Your task to perform on an android device: turn on location history Image 0: 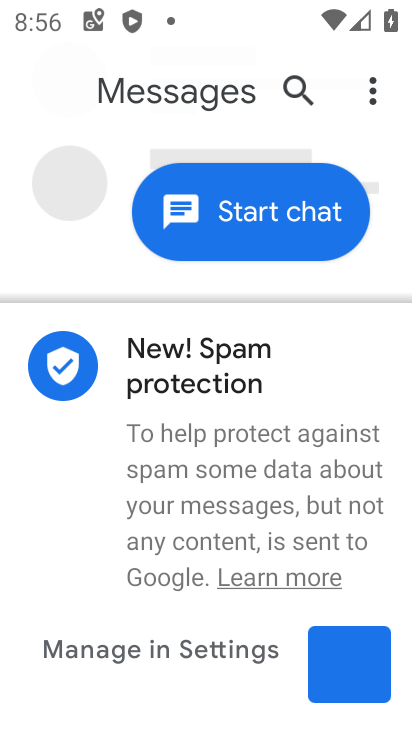
Step 0: press home button
Your task to perform on an android device: turn on location history Image 1: 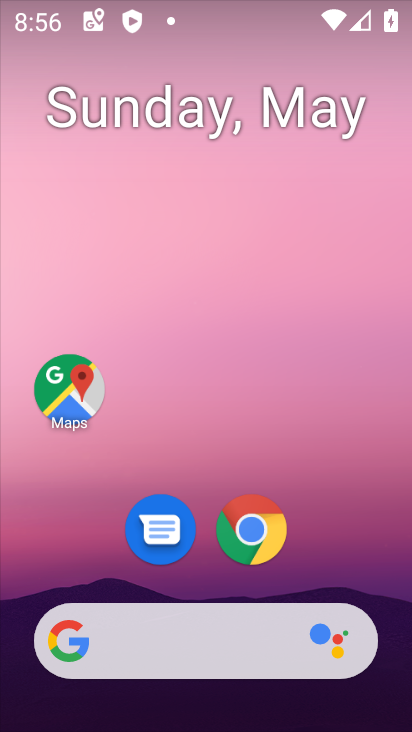
Step 1: drag from (352, 557) to (270, 42)
Your task to perform on an android device: turn on location history Image 2: 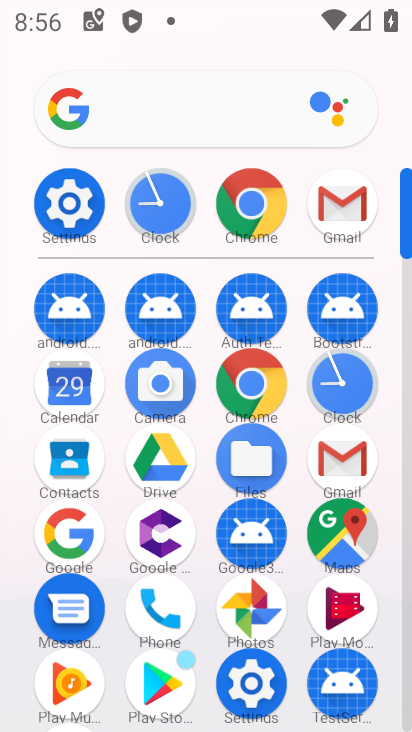
Step 2: click (62, 213)
Your task to perform on an android device: turn on location history Image 3: 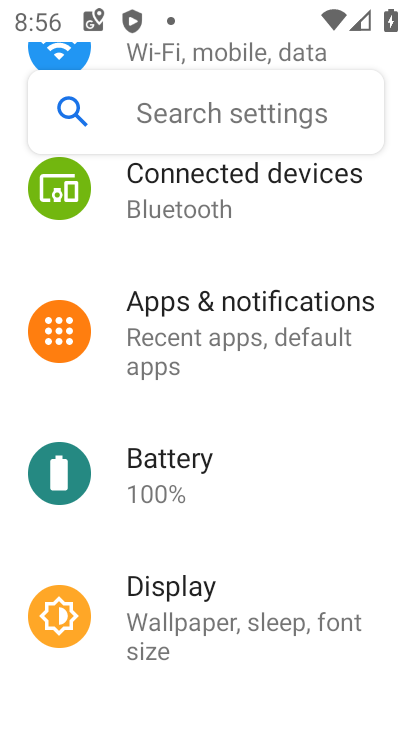
Step 3: drag from (216, 584) to (211, 241)
Your task to perform on an android device: turn on location history Image 4: 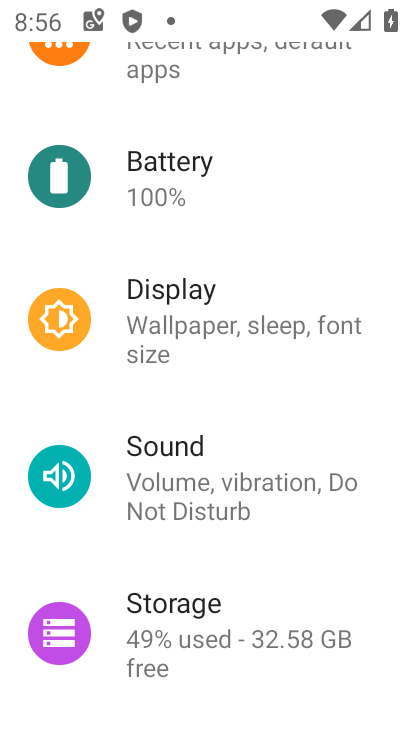
Step 4: drag from (221, 597) to (206, 221)
Your task to perform on an android device: turn on location history Image 5: 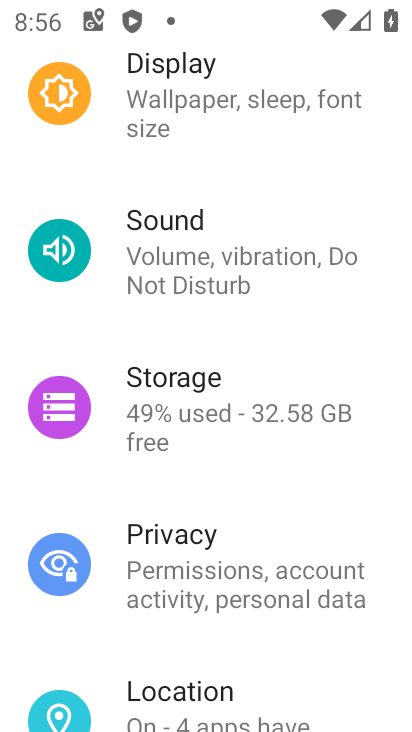
Step 5: click (226, 683)
Your task to perform on an android device: turn on location history Image 6: 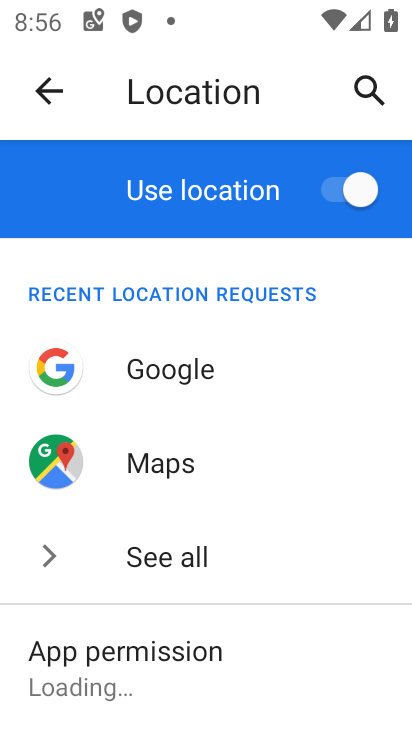
Step 6: drag from (266, 609) to (261, 465)
Your task to perform on an android device: turn on location history Image 7: 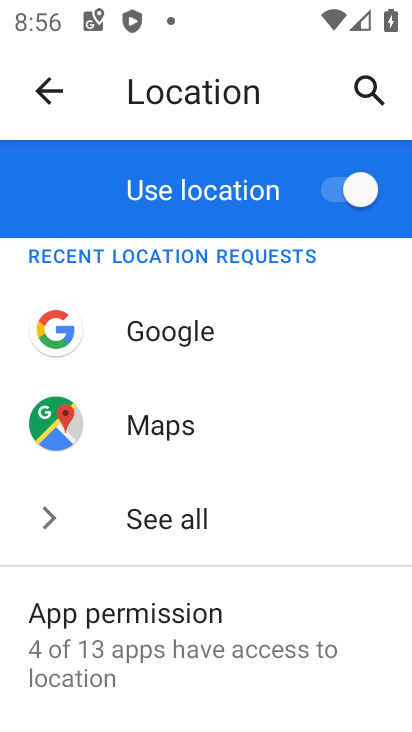
Step 7: drag from (272, 622) to (268, 544)
Your task to perform on an android device: turn on location history Image 8: 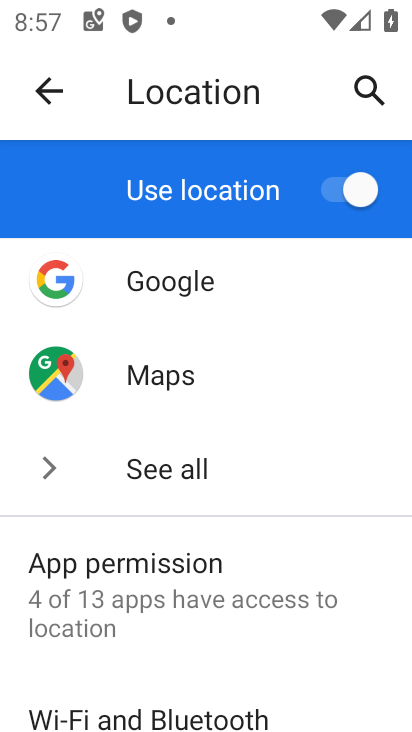
Step 8: drag from (184, 624) to (184, 528)
Your task to perform on an android device: turn on location history Image 9: 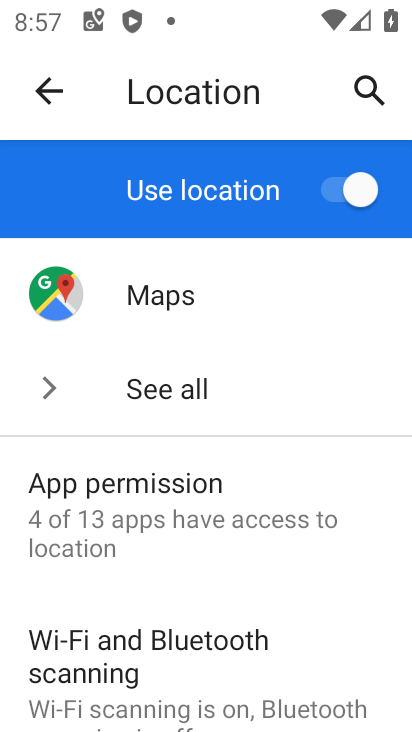
Step 9: drag from (245, 688) to (242, 481)
Your task to perform on an android device: turn on location history Image 10: 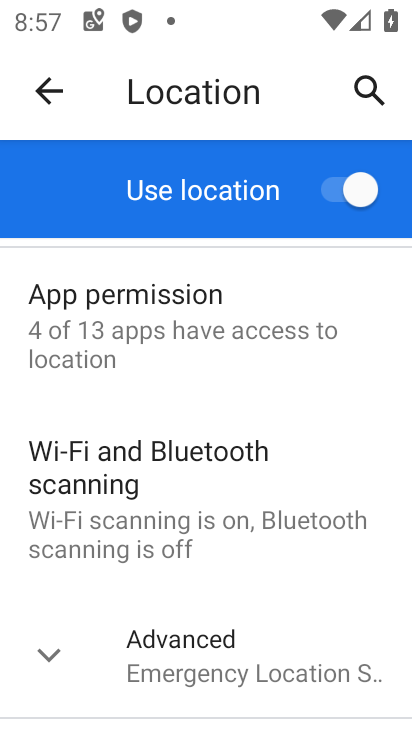
Step 10: drag from (239, 649) to (255, 606)
Your task to perform on an android device: turn on location history Image 11: 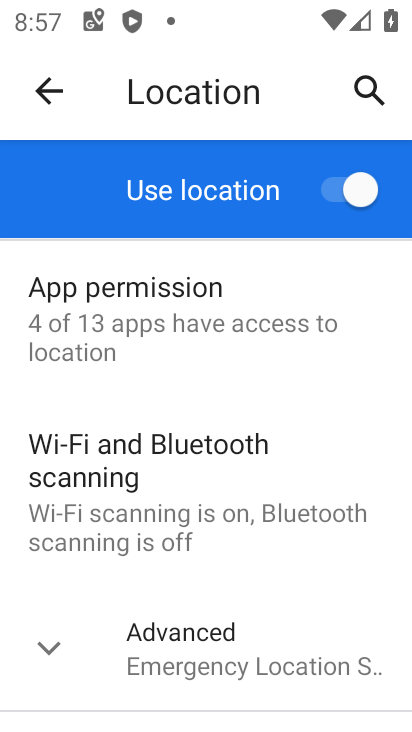
Step 11: click (226, 669)
Your task to perform on an android device: turn on location history Image 12: 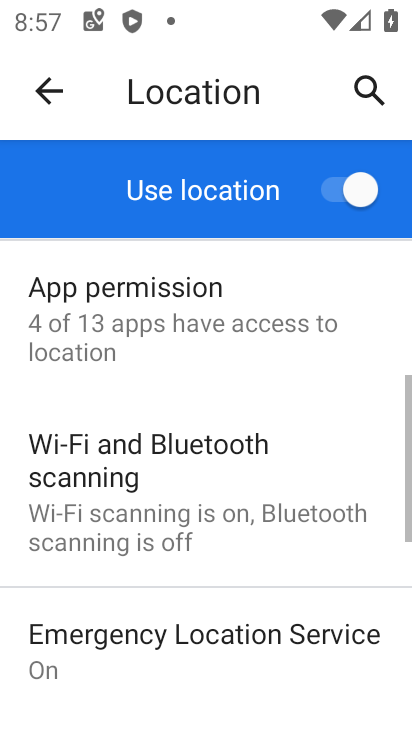
Step 12: click (287, 618)
Your task to perform on an android device: turn on location history Image 13: 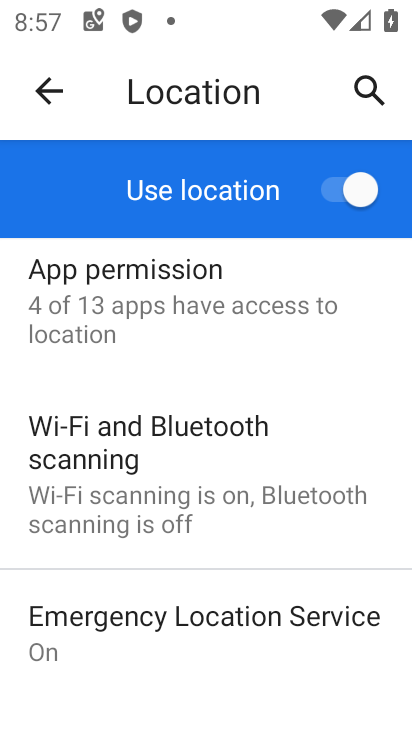
Step 13: drag from (232, 638) to (241, 487)
Your task to perform on an android device: turn on location history Image 14: 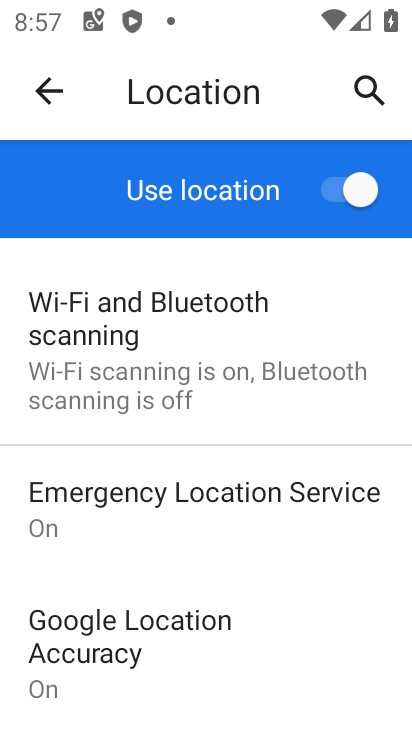
Step 14: drag from (228, 679) to (228, 605)
Your task to perform on an android device: turn on location history Image 15: 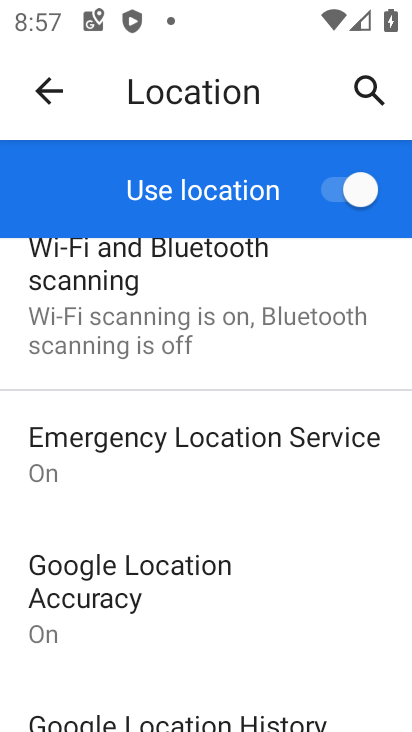
Step 15: click (258, 706)
Your task to perform on an android device: turn on location history Image 16: 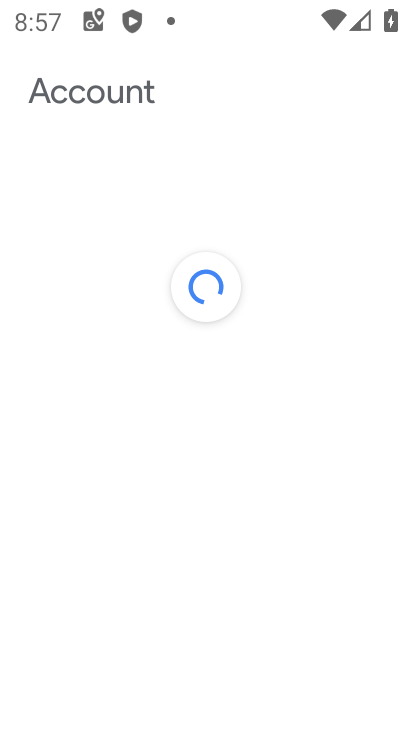
Step 16: task complete